Your task to perform on an android device: change notification settings in the gmail app Image 0: 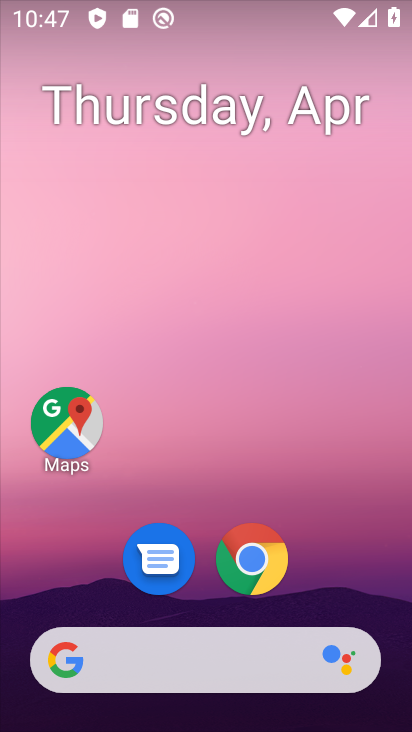
Step 0: drag from (277, 696) to (262, 140)
Your task to perform on an android device: change notification settings in the gmail app Image 1: 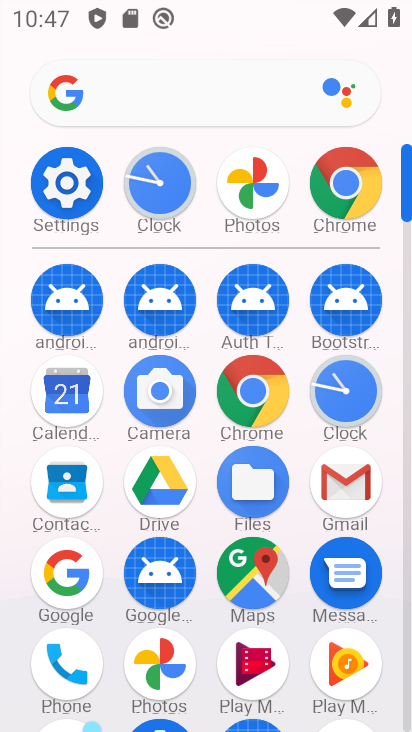
Step 1: click (341, 478)
Your task to perform on an android device: change notification settings in the gmail app Image 2: 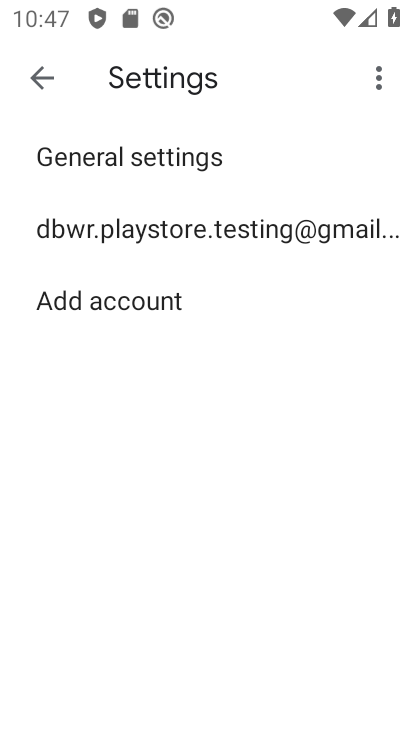
Step 2: click (161, 238)
Your task to perform on an android device: change notification settings in the gmail app Image 3: 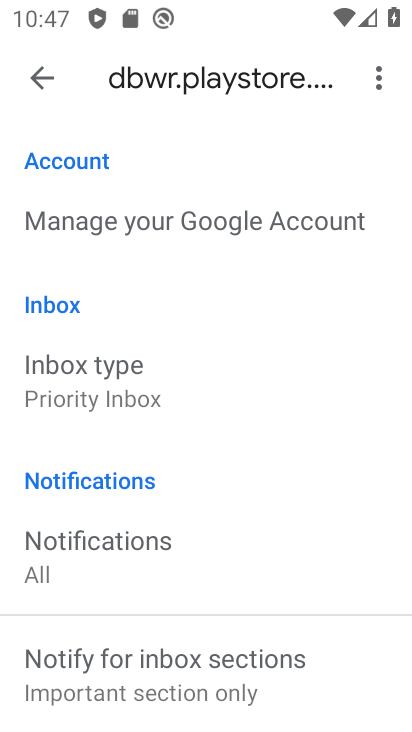
Step 3: click (142, 564)
Your task to perform on an android device: change notification settings in the gmail app Image 4: 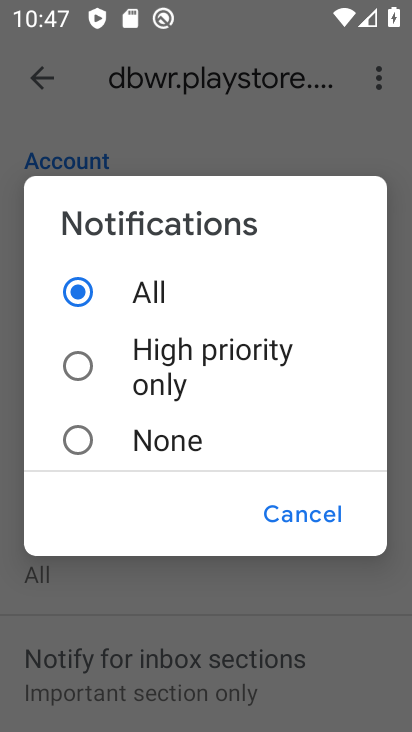
Step 4: click (162, 364)
Your task to perform on an android device: change notification settings in the gmail app Image 5: 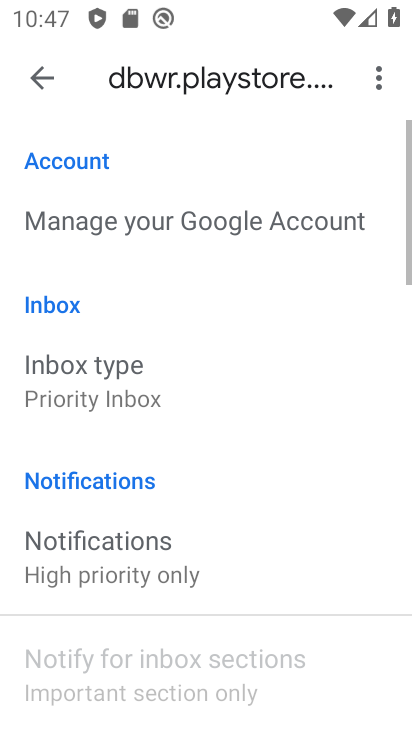
Step 5: task complete